Your task to perform on an android device: toggle improve location accuracy Image 0: 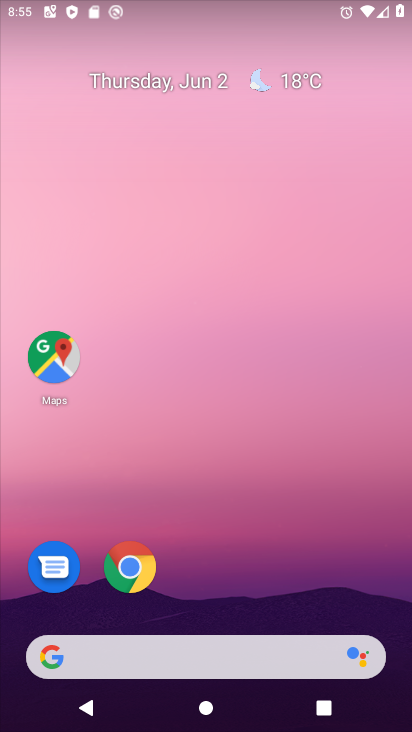
Step 0: drag from (192, 617) to (384, 0)
Your task to perform on an android device: toggle improve location accuracy Image 1: 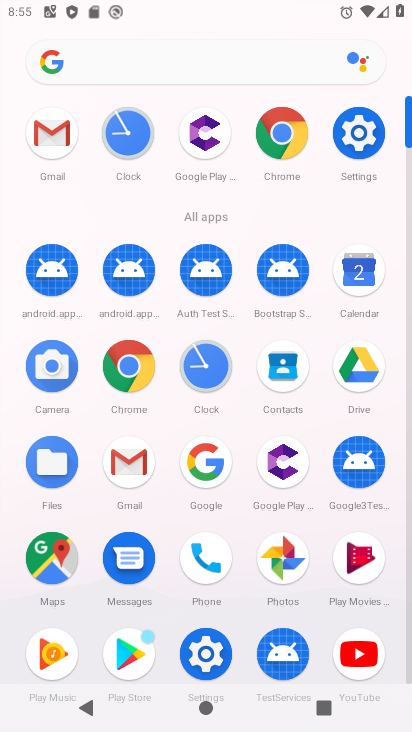
Step 1: click (208, 655)
Your task to perform on an android device: toggle improve location accuracy Image 2: 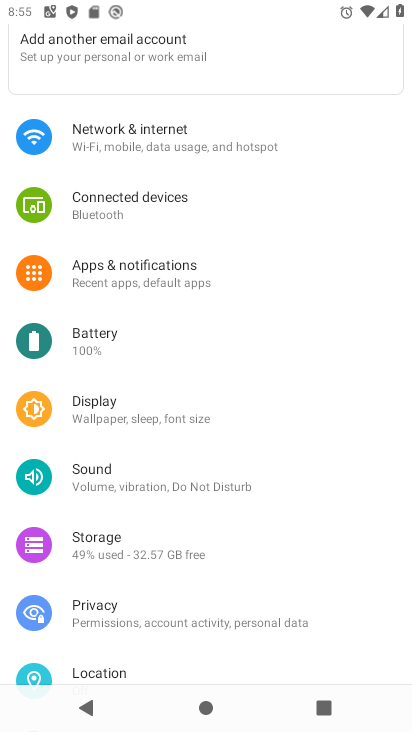
Step 2: drag from (100, 577) to (111, 419)
Your task to perform on an android device: toggle improve location accuracy Image 3: 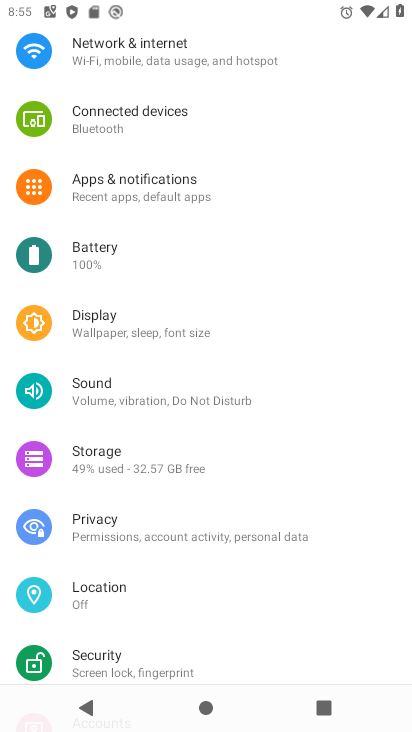
Step 3: click (96, 601)
Your task to perform on an android device: toggle improve location accuracy Image 4: 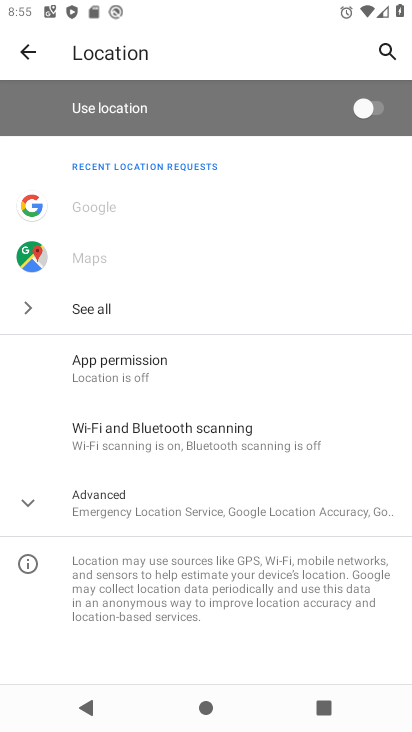
Step 4: click (149, 602)
Your task to perform on an android device: toggle improve location accuracy Image 5: 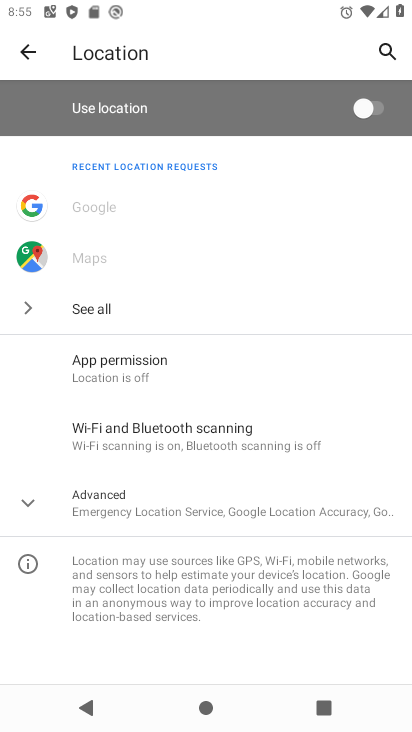
Step 5: click (150, 505)
Your task to perform on an android device: toggle improve location accuracy Image 6: 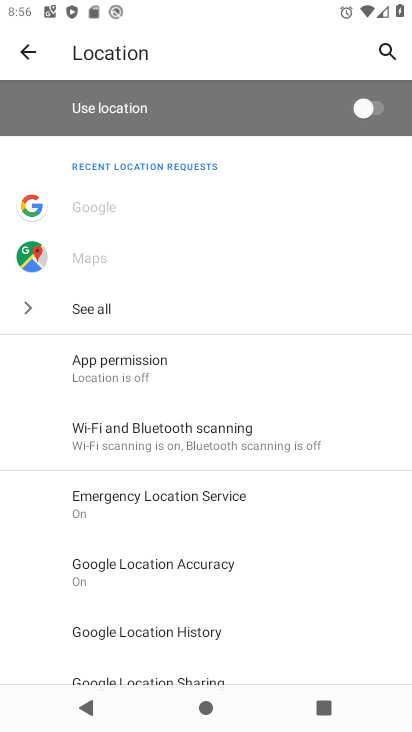
Step 6: click (163, 578)
Your task to perform on an android device: toggle improve location accuracy Image 7: 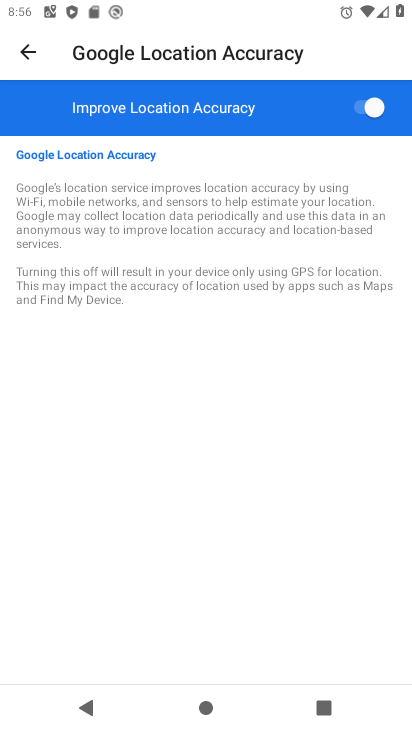
Step 7: click (344, 107)
Your task to perform on an android device: toggle improve location accuracy Image 8: 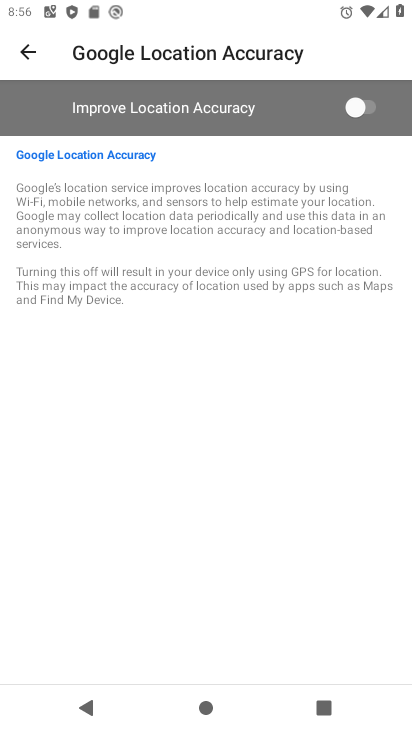
Step 8: task complete